Your task to perform on an android device: turn off data saver in the chrome app Image 0: 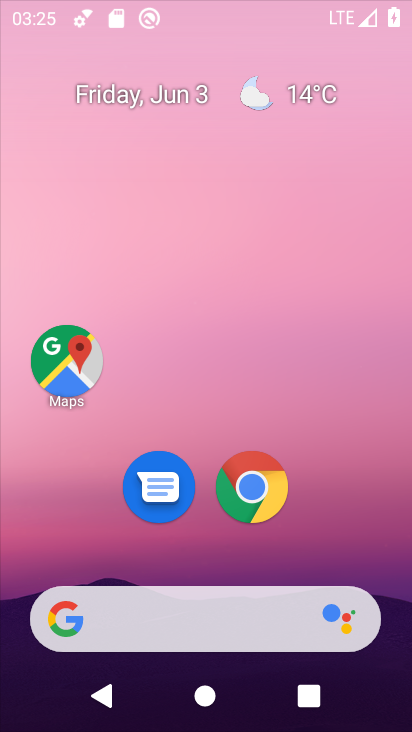
Step 0: drag from (380, 564) to (230, 30)
Your task to perform on an android device: turn off data saver in the chrome app Image 1: 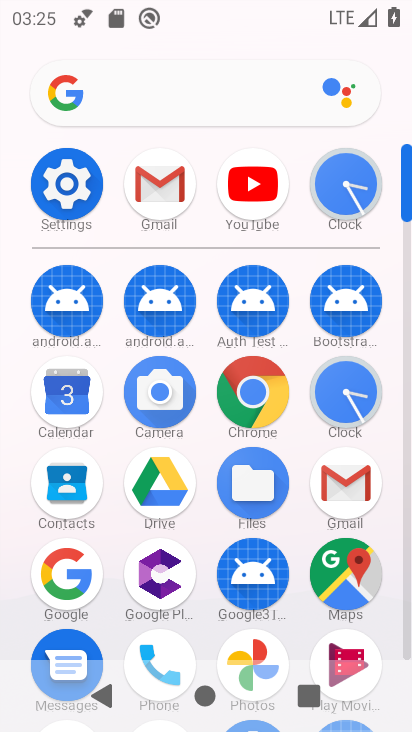
Step 1: click (254, 389)
Your task to perform on an android device: turn off data saver in the chrome app Image 2: 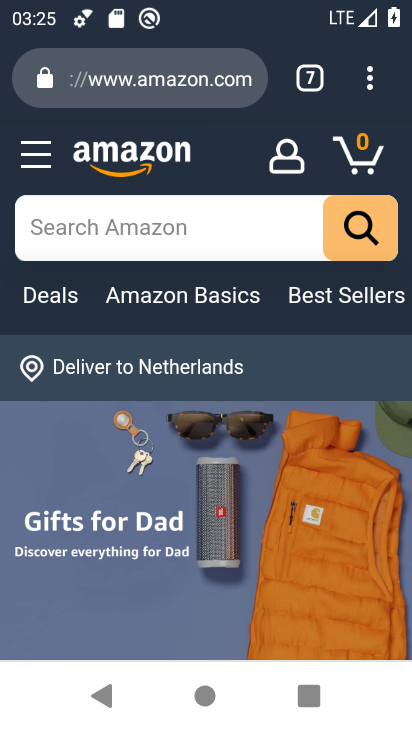
Step 2: click (364, 84)
Your task to perform on an android device: turn off data saver in the chrome app Image 3: 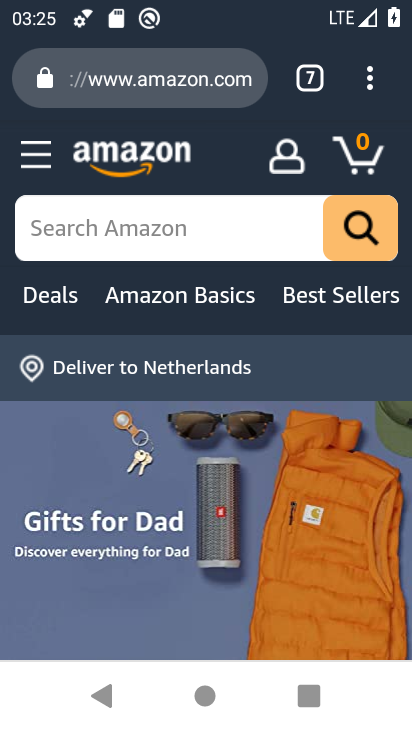
Step 3: click (369, 56)
Your task to perform on an android device: turn off data saver in the chrome app Image 4: 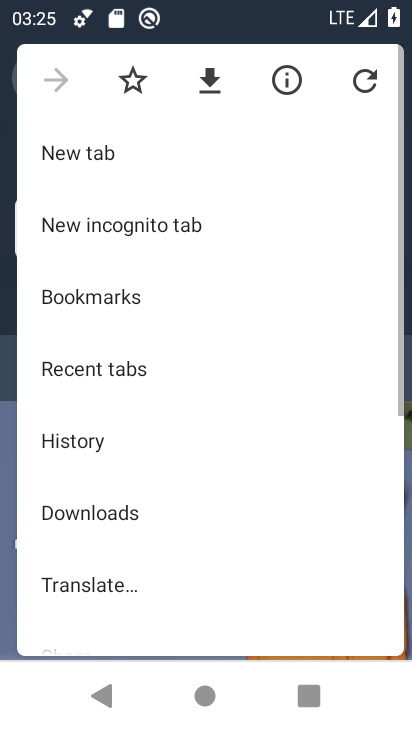
Step 4: drag from (186, 562) to (193, 0)
Your task to perform on an android device: turn off data saver in the chrome app Image 5: 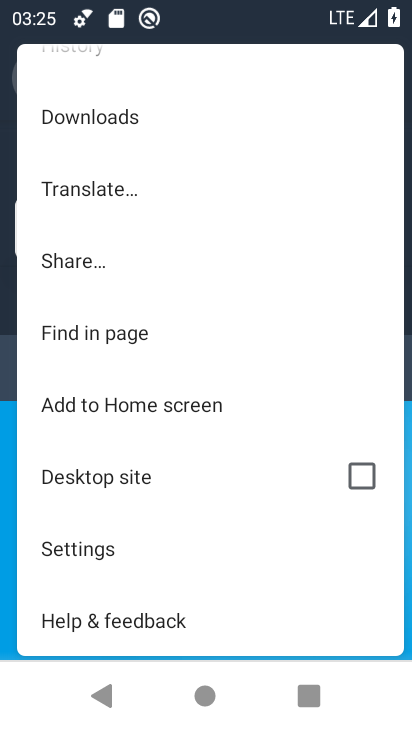
Step 5: click (149, 557)
Your task to perform on an android device: turn off data saver in the chrome app Image 6: 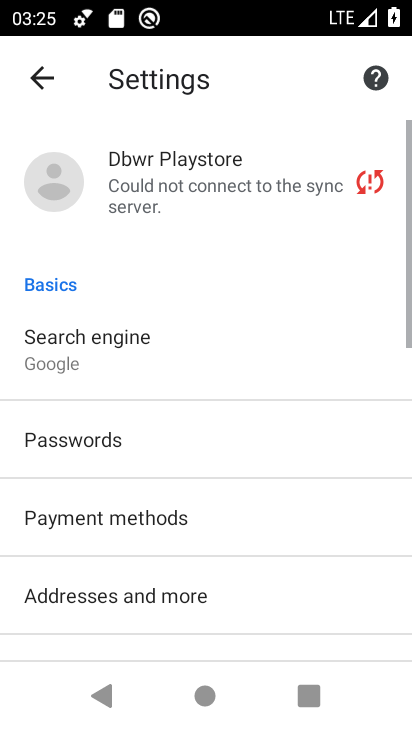
Step 6: drag from (169, 547) to (198, 6)
Your task to perform on an android device: turn off data saver in the chrome app Image 7: 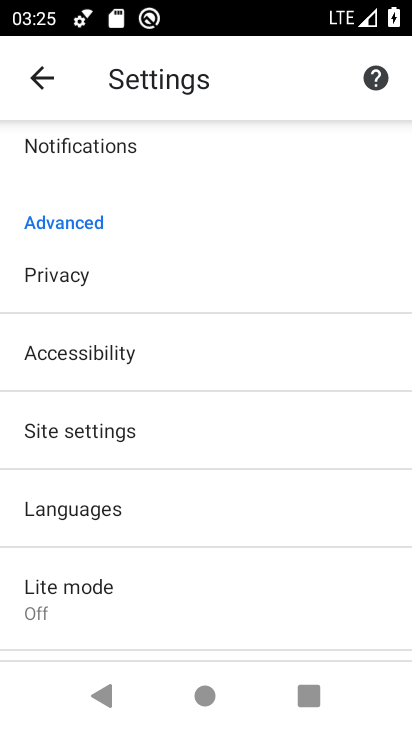
Step 7: click (130, 592)
Your task to perform on an android device: turn off data saver in the chrome app Image 8: 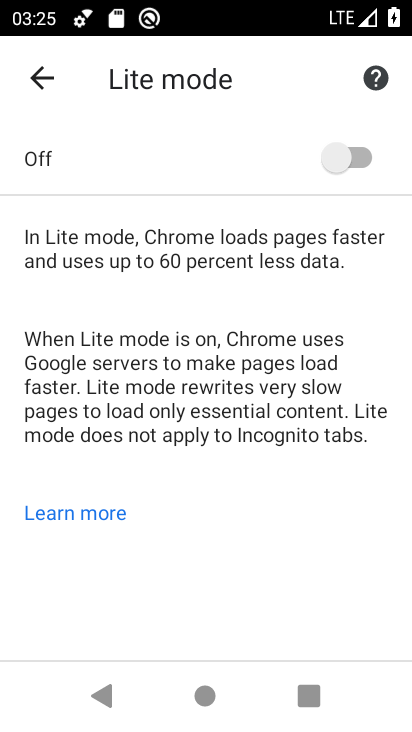
Step 8: task complete